Your task to perform on an android device: Clear the shopping cart on newegg.com. Search for amazon basics triple a on newegg.com, select the first entry, add it to the cart, then select checkout. Image 0: 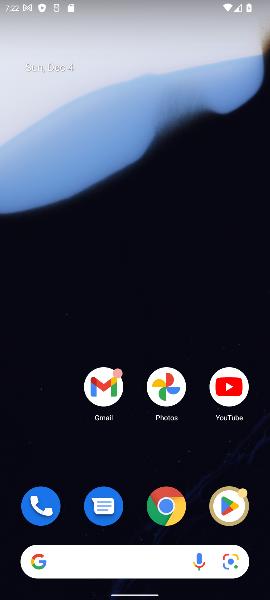
Step 0: click (176, 504)
Your task to perform on an android device: Clear the shopping cart on newegg.com. Search for amazon basics triple a on newegg.com, select the first entry, add it to the cart, then select checkout. Image 1: 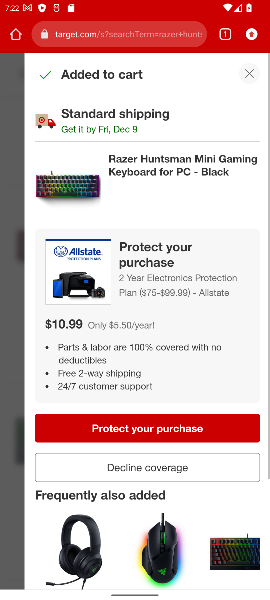
Step 1: click (153, 29)
Your task to perform on an android device: Clear the shopping cart on newegg.com. Search for amazon basics triple a on newegg.com, select the first entry, add it to the cart, then select checkout. Image 2: 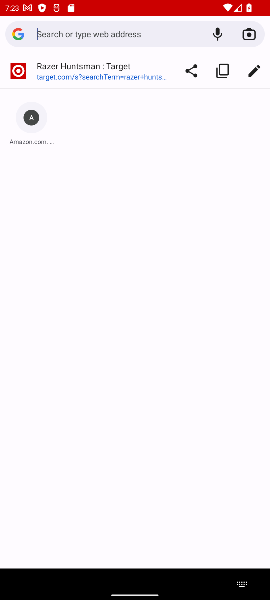
Step 2: type "newegg"
Your task to perform on an android device: Clear the shopping cart on newegg.com. Search for amazon basics triple a on newegg.com, select the first entry, add it to the cart, then select checkout. Image 3: 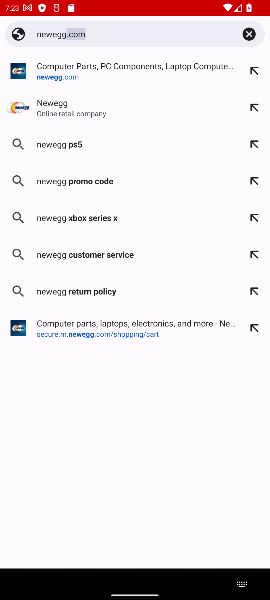
Step 3: click (48, 66)
Your task to perform on an android device: Clear the shopping cart on newegg.com. Search for amazon basics triple a on newegg.com, select the first entry, add it to the cart, then select checkout. Image 4: 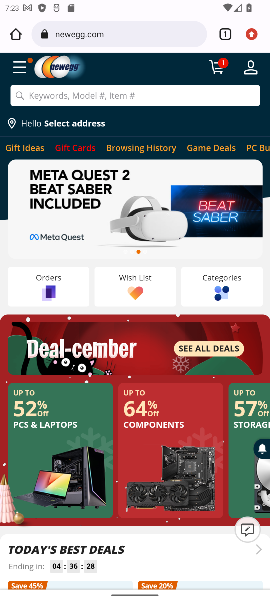
Step 4: click (221, 70)
Your task to perform on an android device: Clear the shopping cart on newegg.com. Search for amazon basics triple a on newegg.com, select the first entry, add it to the cart, then select checkout. Image 5: 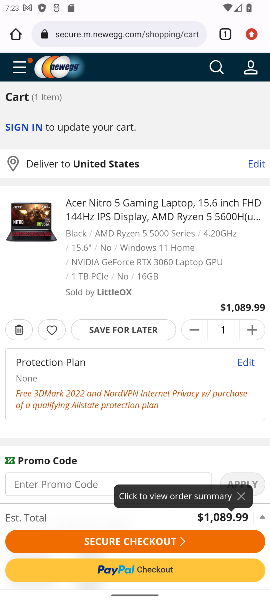
Step 5: click (18, 328)
Your task to perform on an android device: Clear the shopping cart on newegg.com. Search for amazon basics triple a on newegg.com, select the first entry, add it to the cart, then select checkout. Image 6: 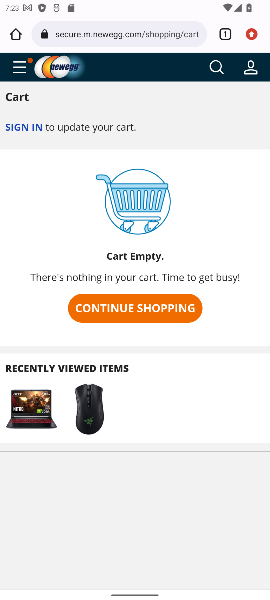
Step 6: click (216, 63)
Your task to perform on an android device: Clear the shopping cart on newegg.com. Search for amazon basics triple a on newegg.com, select the first entry, add it to the cart, then select checkout. Image 7: 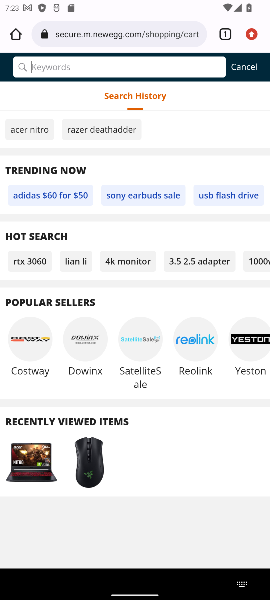
Step 7: type "amazon basics triple a "
Your task to perform on an android device: Clear the shopping cart on newegg.com. Search for amazon basics triple a on newegg.com, select the first entry, add it to the cart, then select checkout. Image 8: 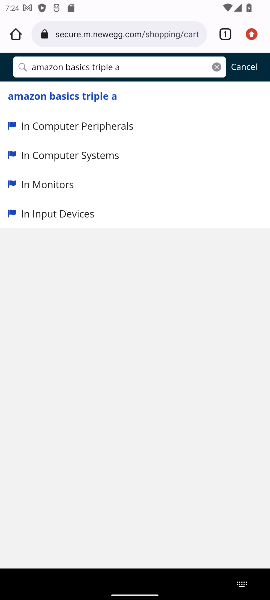
Step 8: click (75, 101)
Your task to perform on an android device: Clear the shopping cart on newegg.com. Search for amazon basics triple a on newegg.com, select the first entry, add it to the cart, then select checkout. Image 9: 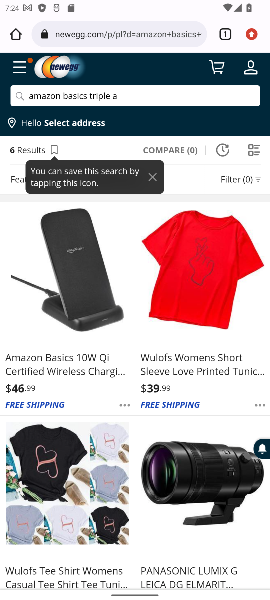
Step 9: task complete